Your task to perform on an android device: create a new album in the google photos Image 0: 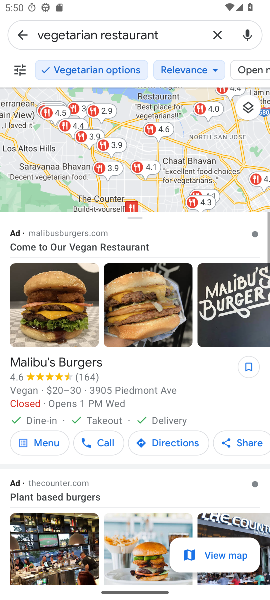
Step 0: press home button
Your task to perform on an android device: create a new album in the google photos Image 1: 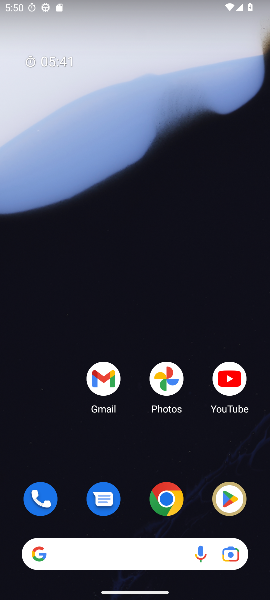
Step 1: click (165, 372)
Your task to perform on an android device: create a new album in the google photos Image 2: 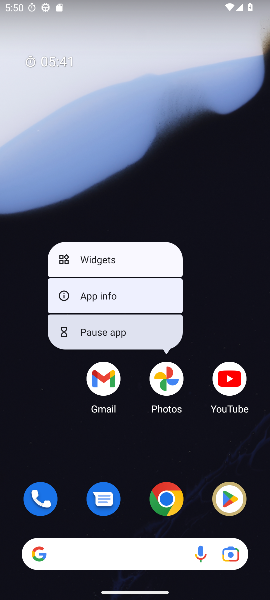
Step 2: click (165, 370)
Your task to perform on an android device: create a new album in the google photos Image 3: 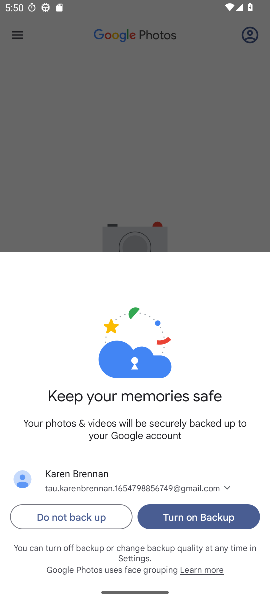
Step 3: click (172, 524)
Your task to perform on an android device: create a new album in the google photos Image 4: 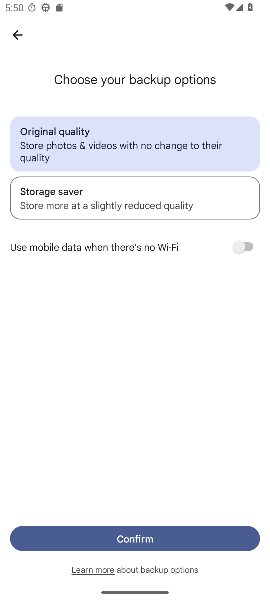
Step 4: click (154, 538)
Your task to perform on an android device: create a new album in the google photos Image 5: 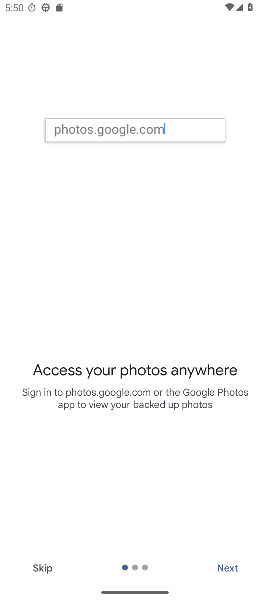
Step 5: click (234, 568)
Your task to perform on an android device: create a new album in the google photos Image 6: 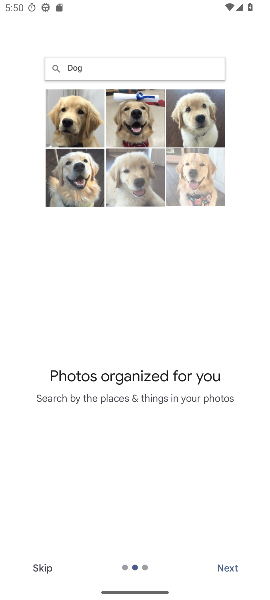
Step 6: click (236, 569)
Your task to perform on an android device: create a new album in the google photos Image 7: 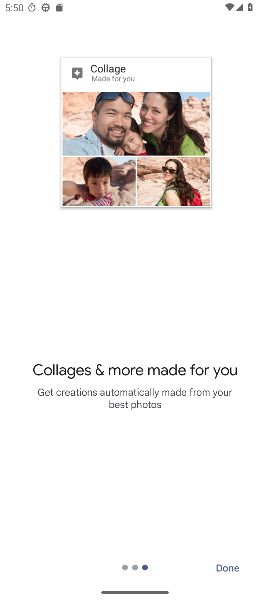
Step 7: click (236, 569)
Your task to perform on an android device: create a new album in the google photos Image 8: 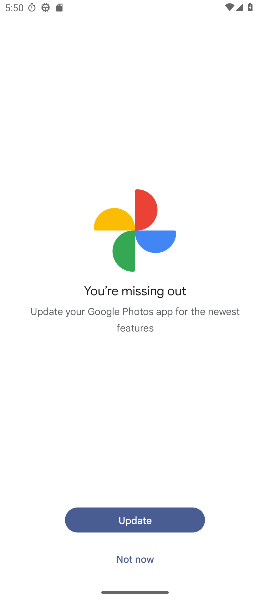
Step 8: click (128, 511)
Your task to perform on an android device: create a new album in the google photos Image 9: 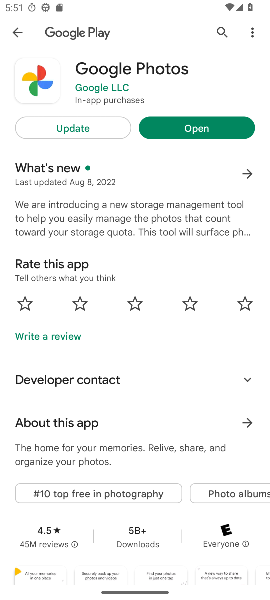
Step 9: click (52, 128)
Your task to perform on an android device: create a new album in the google photos Image 10: 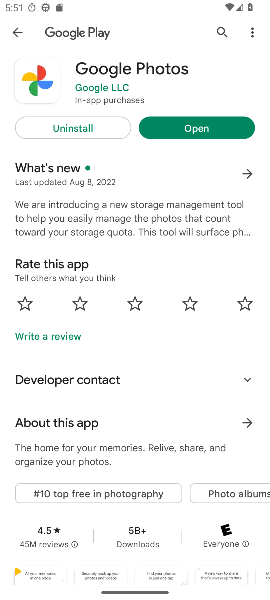
Step 10: click (201, 135)
Your task to perform on an android device: create a new album in the google photos Image 11: 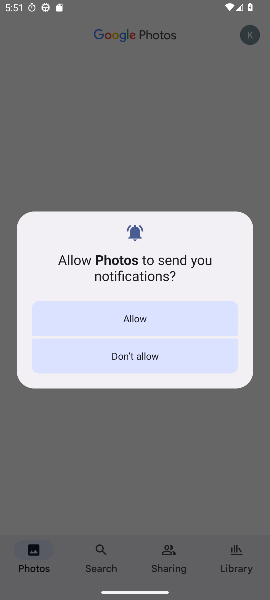
Step 11: click (154, 325)
Your task to perform on an android device: create a new album in the google photos Image 12: 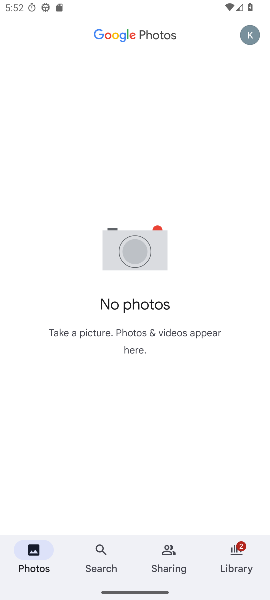
Step 12: task complete